Your task to perform on an android device: empty trash in the gmail app Image 0: 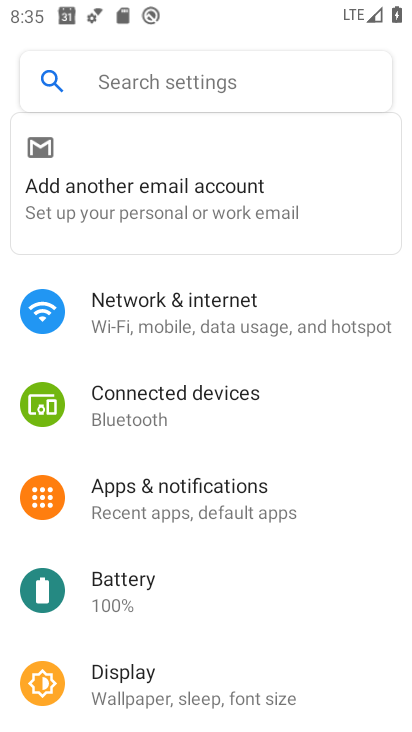
Step 0: press home button
Your task to perform on an android device: empty trash in the gmail app Image 1: 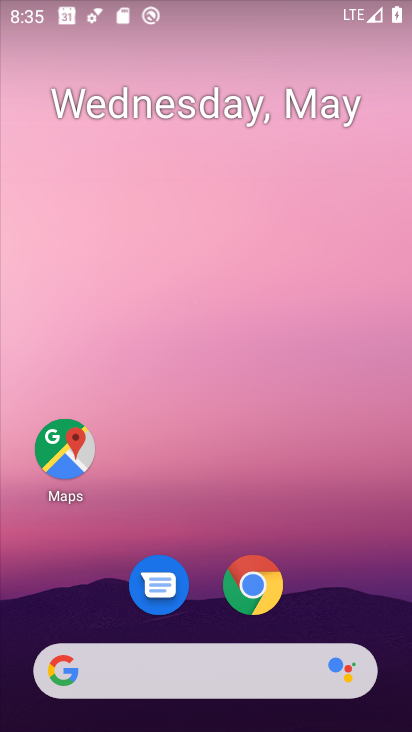
Step 1: drag from (320, 585) to (286, 46)
Your task to perform on an android device: empty trash in the gmail app Image 2: 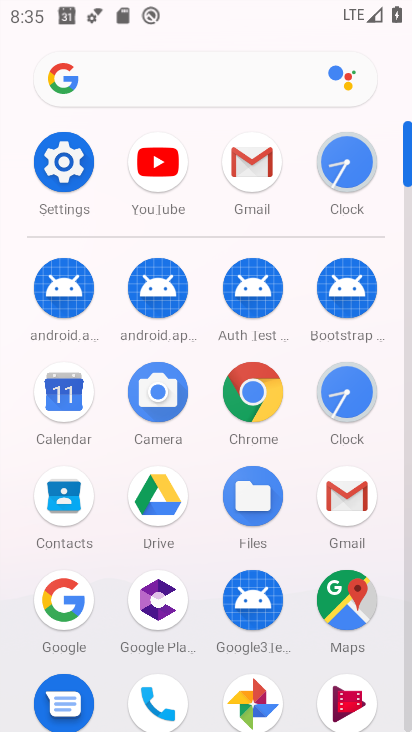
Step 2: click (256, 151)
Your task to perform on an android device: empty trash in the gmail app Image 3: 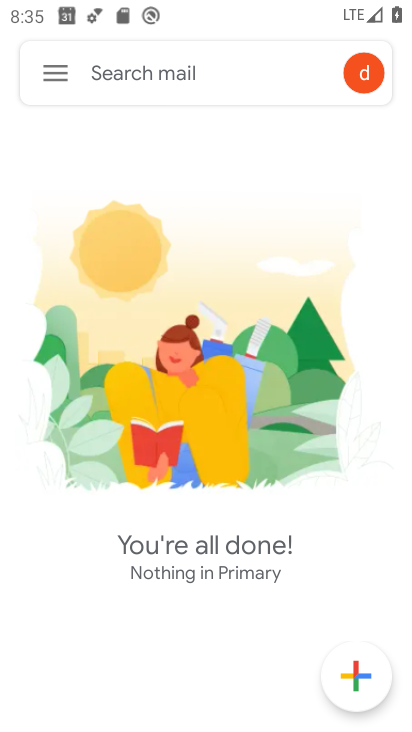
Step 3: click (49, 67)
Your task to perform on an android device: empty trash in the gmail app Image 4: 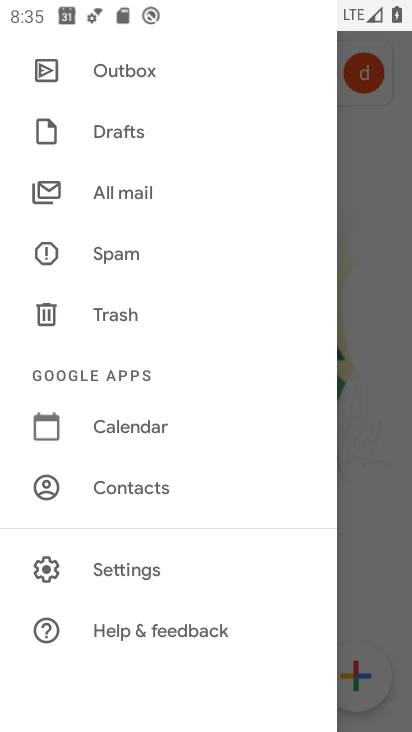
Step 4: click (117, 307)
Your task to perform on an android device: empty trash in the gmail app Image 5: 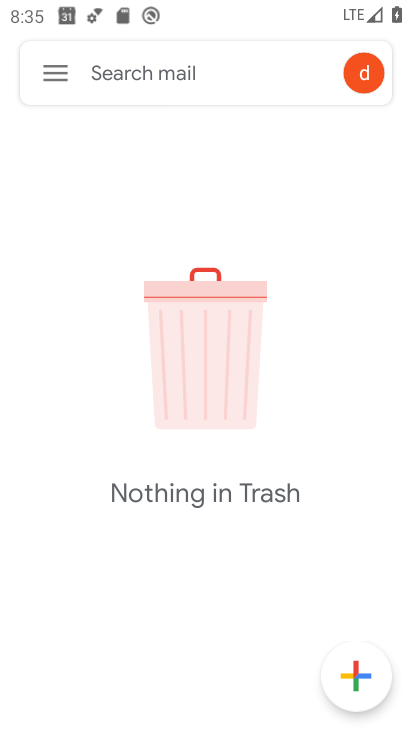
Step 5: task complete